Your task to perform on an android device: Go to Google Image 0: 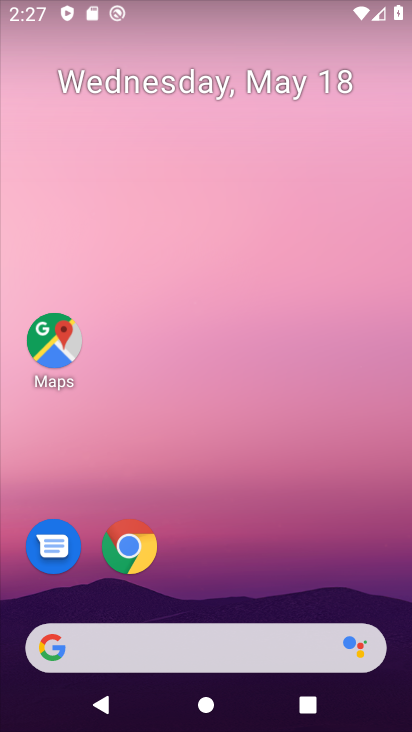
Step 0: drag from (227, 729) to (237, 154)
Your task to perform on an android device: Go to Google Image 1: 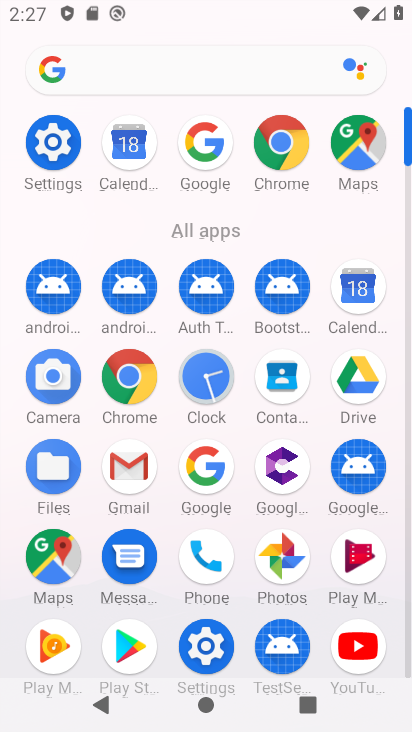
Step 1: click (215, 462)
Your task to perform on an android device: Go to Google Image 2: 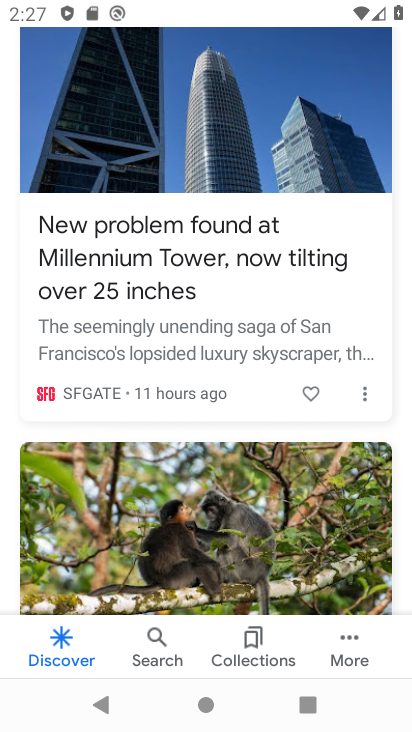
Step 2: task complete